Your task to perform on an android device: Open network settings Image 0: 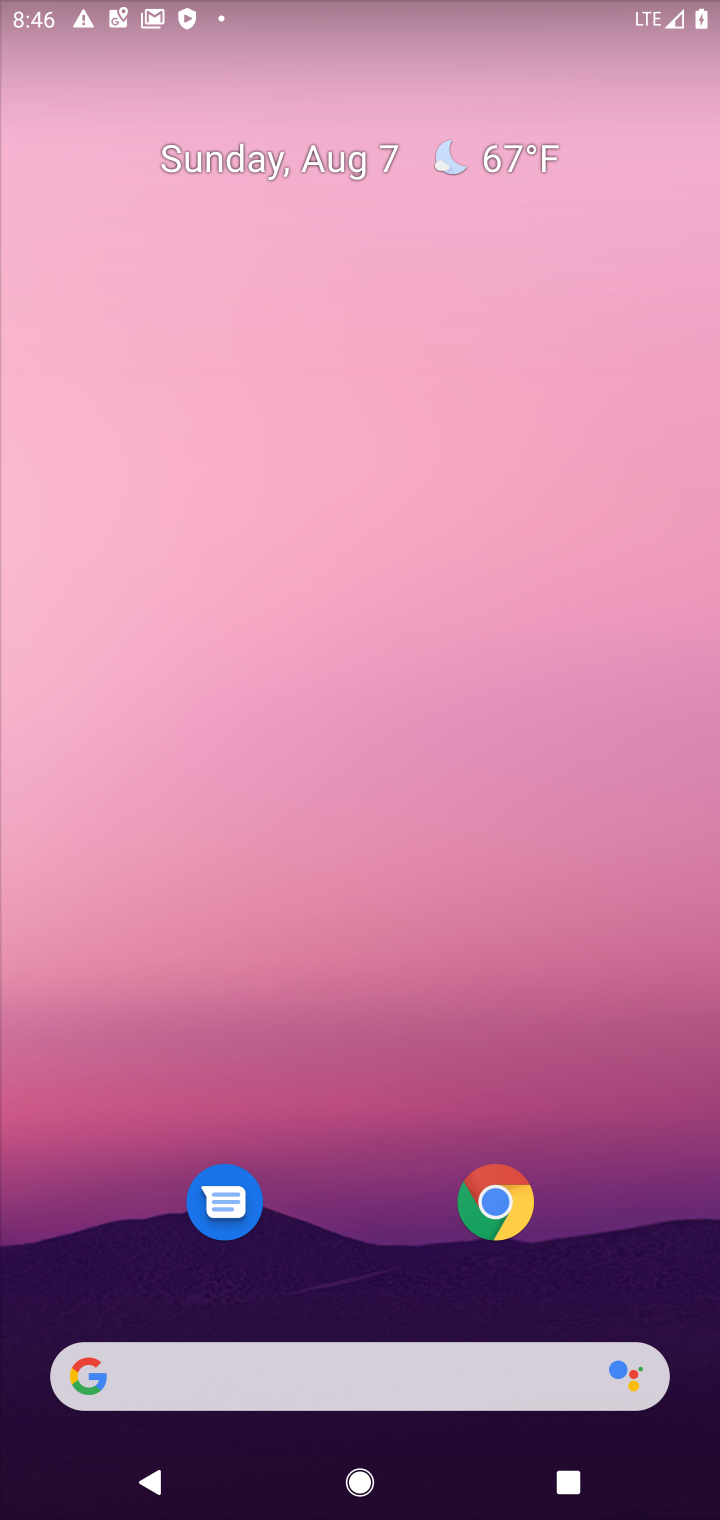
Step 0: drag from (338, 1170) to (700, 318)
Your task to perform on an android device: Open network settings Image 1: 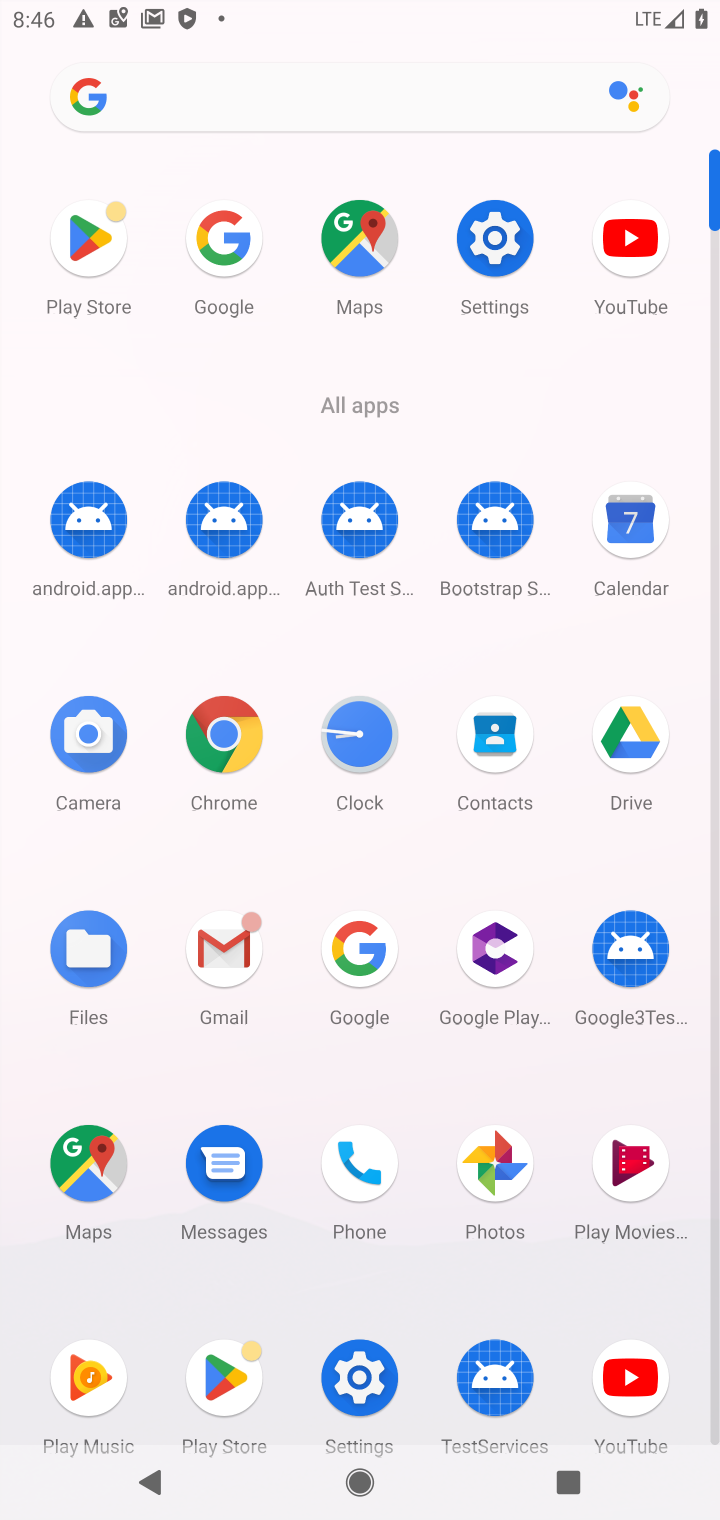
Step 1: click (475, 230)
Your task to perform on an android device: Open network settings Image 2: 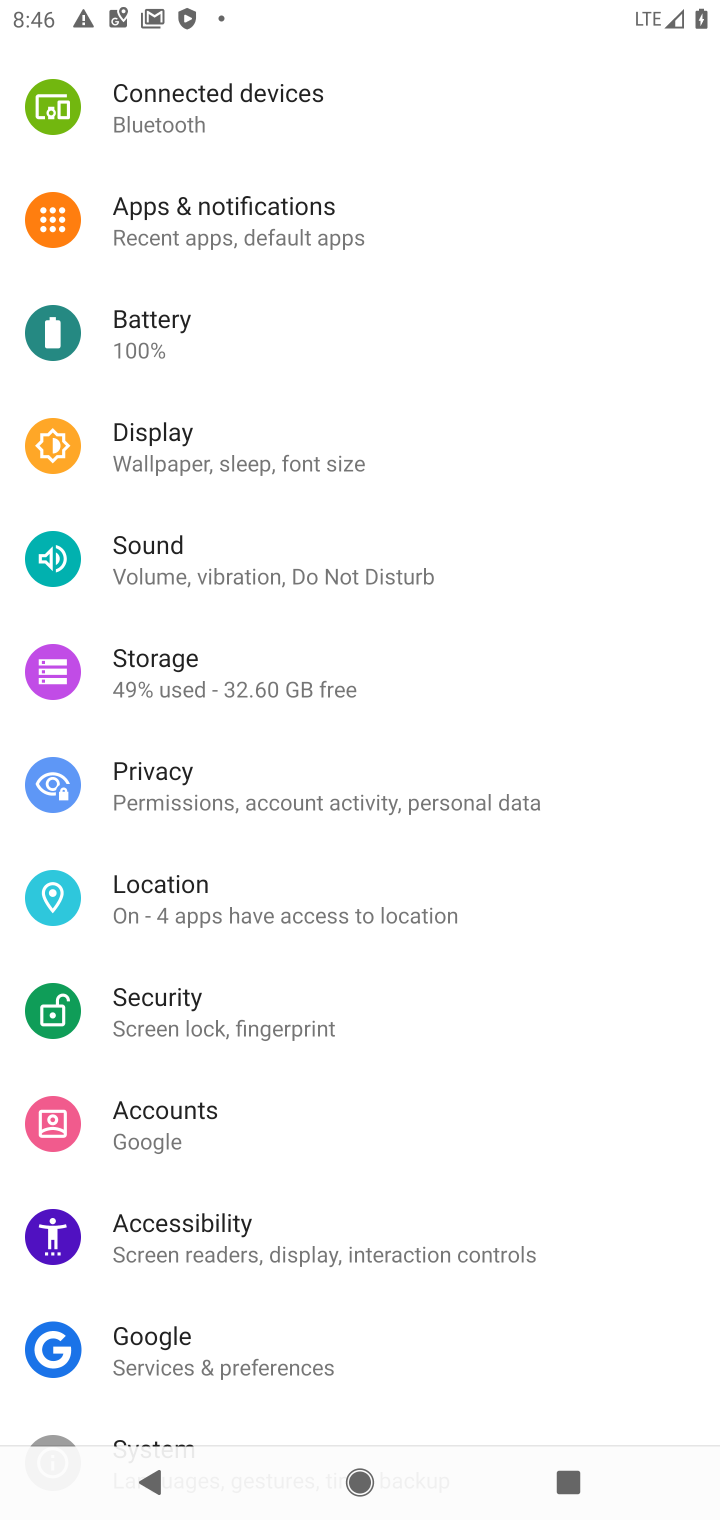
Step 2: drag from (475, 230) to (473, 934)
Your task to perform on an android device: Open network settings Image 3: 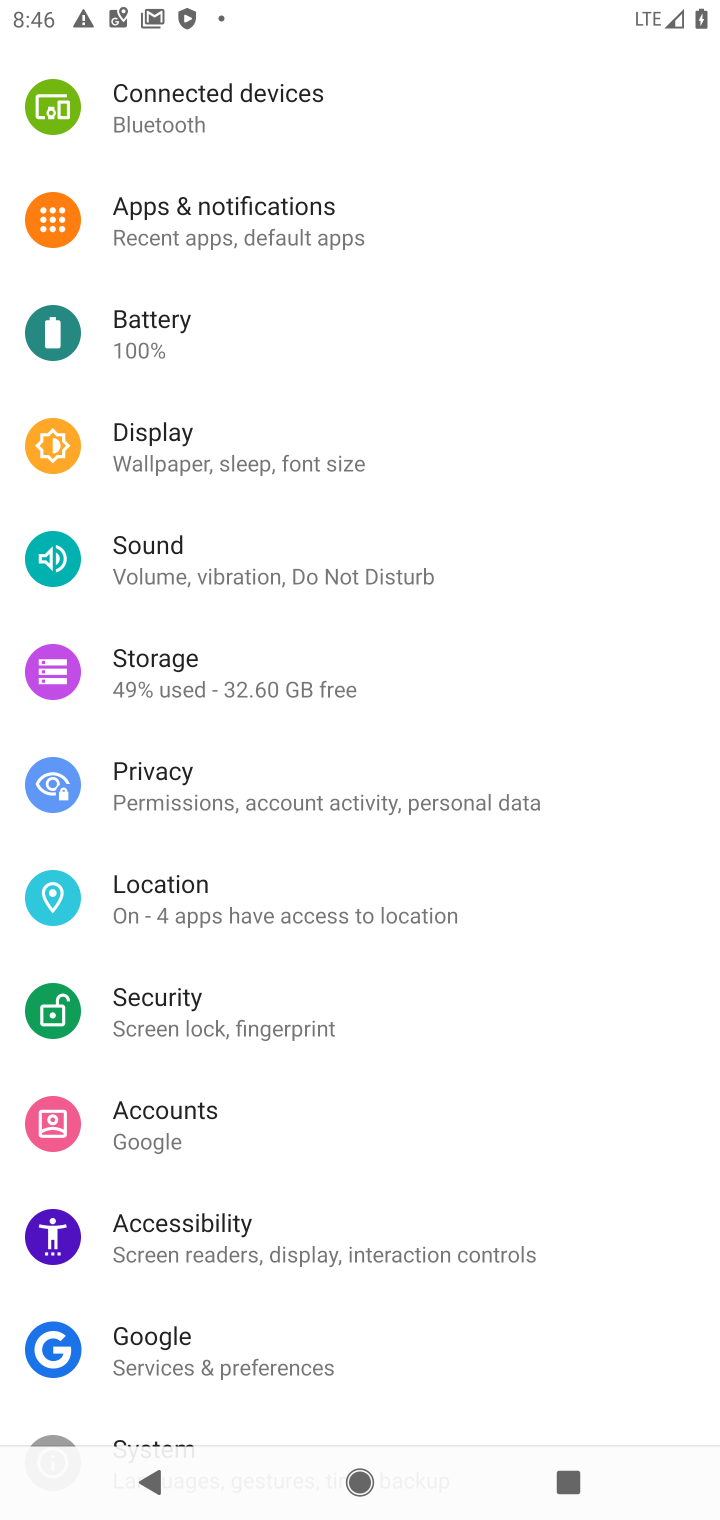
Step 3: drag from (196, 367) to (220, 1028)
Your task to perform on an android device: Open network settings Image 4: 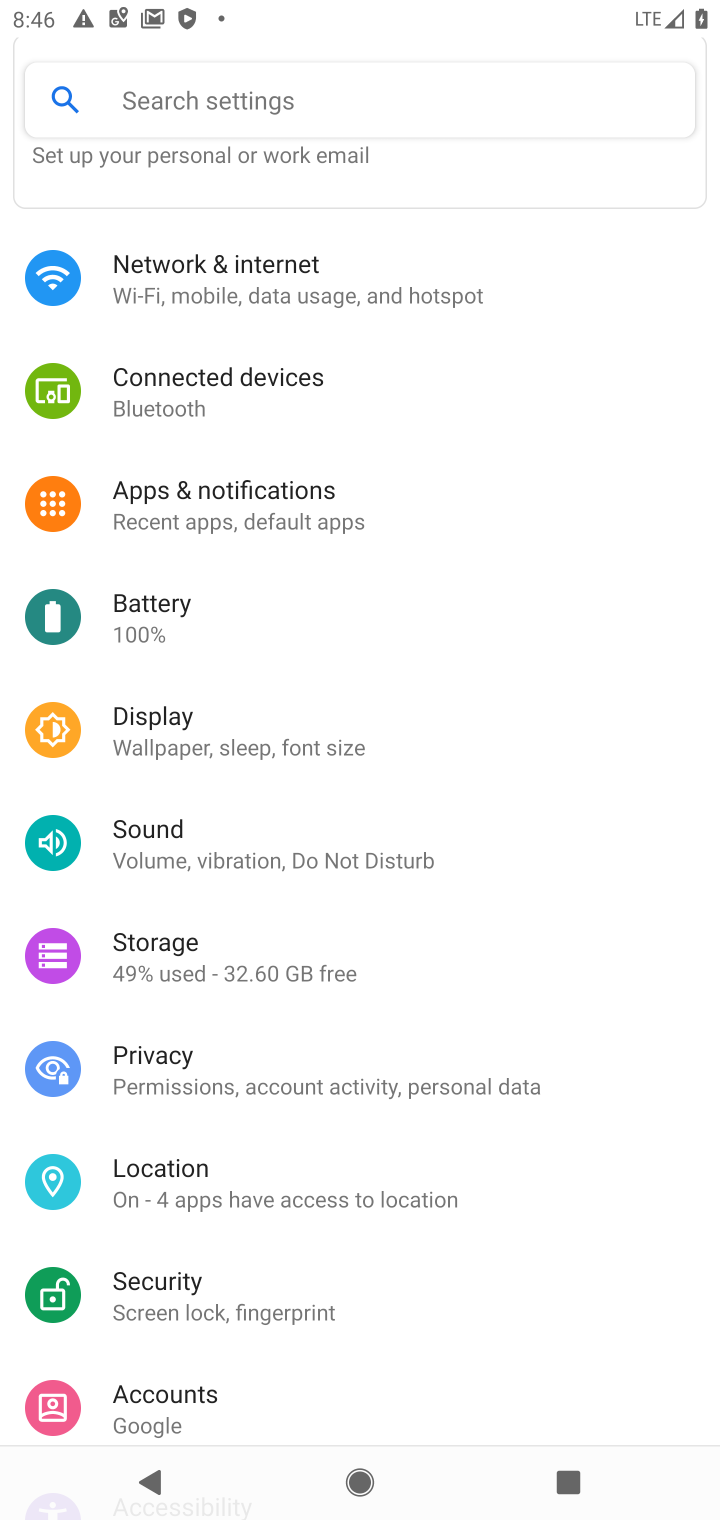
Step 4: click (278, 267)
Your task to perform on an android device: Open network settings Image 5: 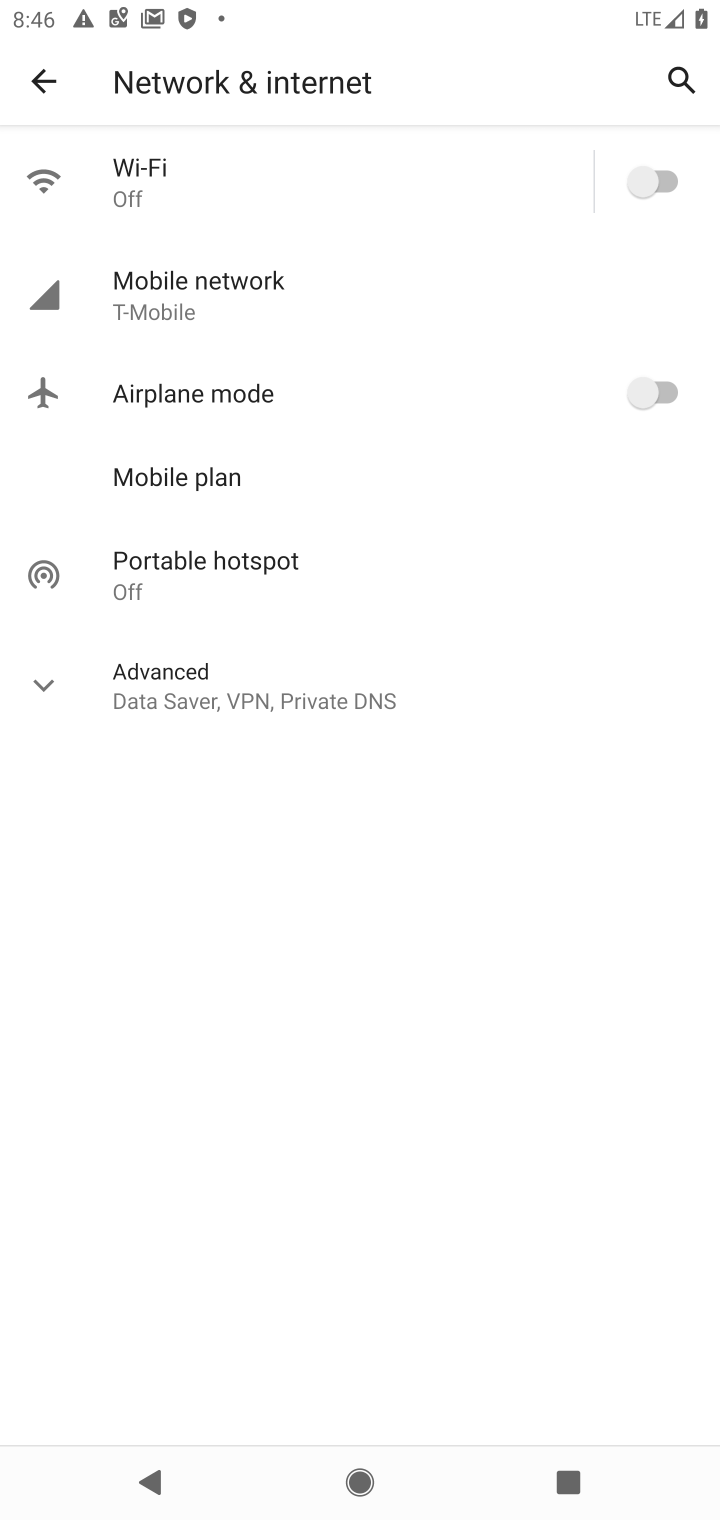
Step 5: click (291, 285)
Your task to perform on an android device: Open network settings Image 6: 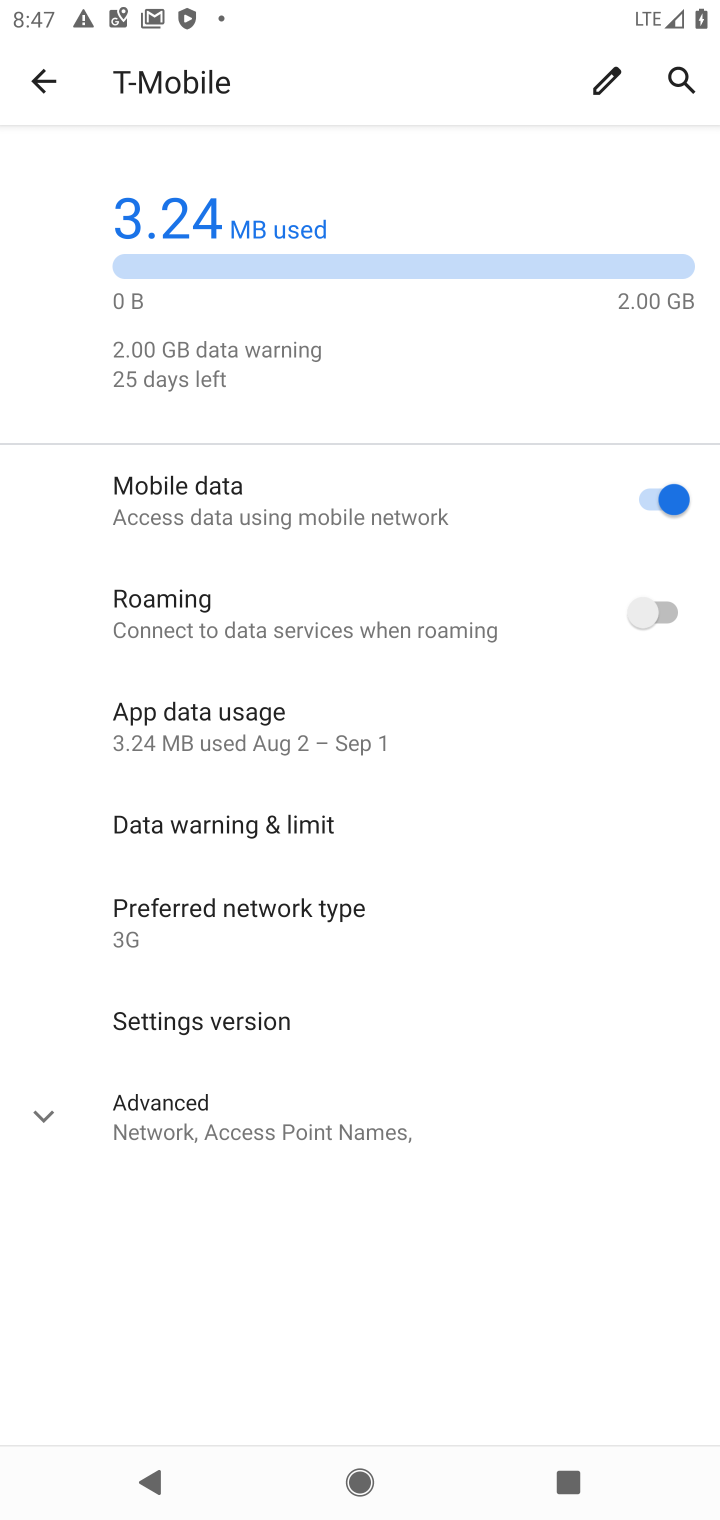
Step 6: task complete